Your task to perform on an android device: Open location settings Image 0: 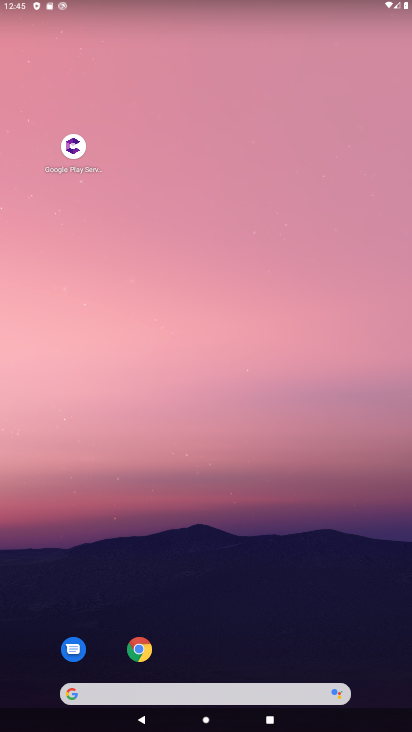
Step 0: press home button
Your task to perform on an android device: Open location settings Image 1: 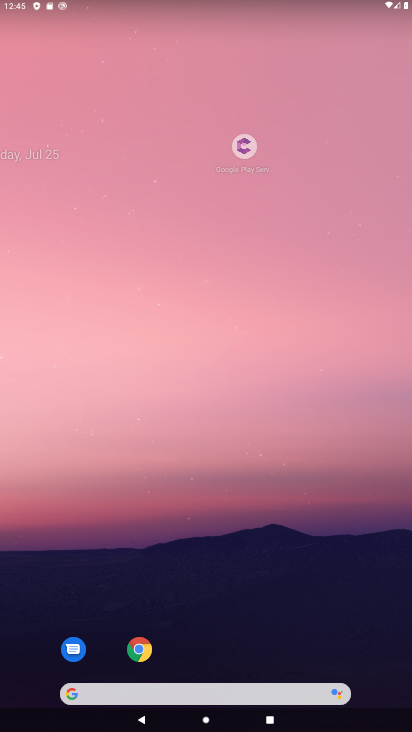
Step 1: drag from (267, 96) to (282, 0)
Your task to perform on an android device: Open location settings Image 2: 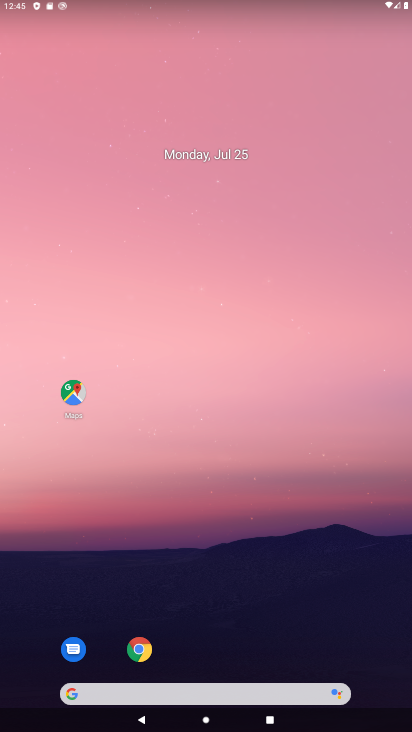
Step 2: drag from (259, 381) to (250, 19)
Your task to perform on an android device: Open location settings Image 3: 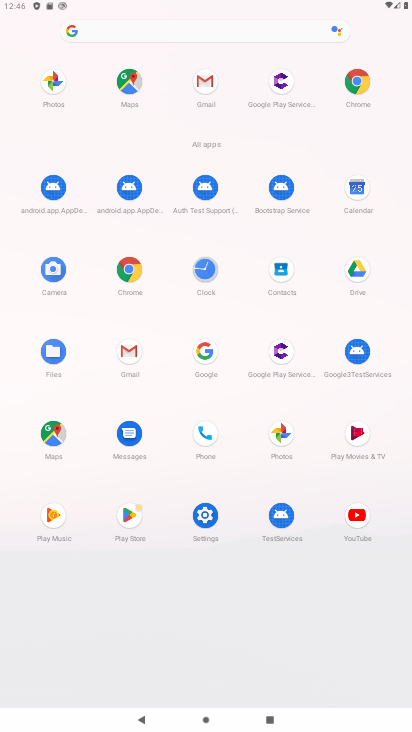
Step 3: click (207, 506)
Your task to perform on an android device: Open location settings Image 4: 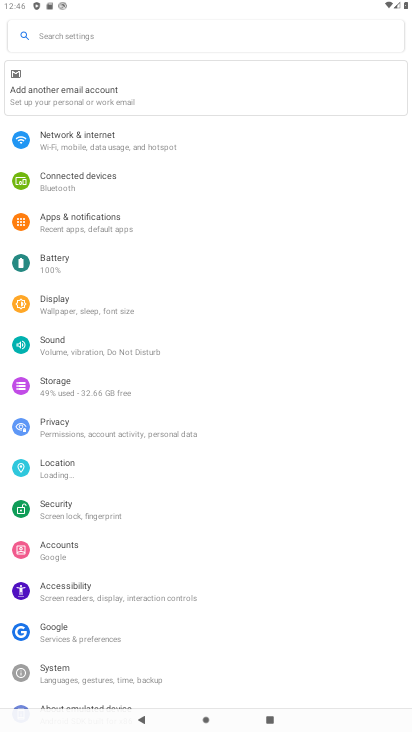
Step 4: click (56, 471)
Your task to perform on an android device: Open location settings Image 5: 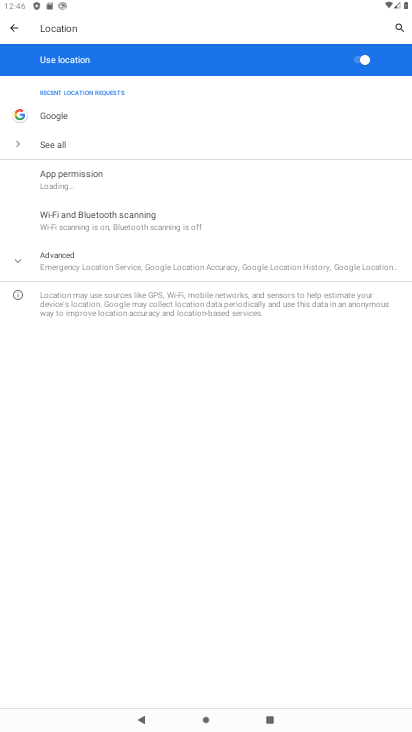
Step 5: task complete